Your task to perform on an android device: Search for seafood restaurants on Google Maps Image 0: 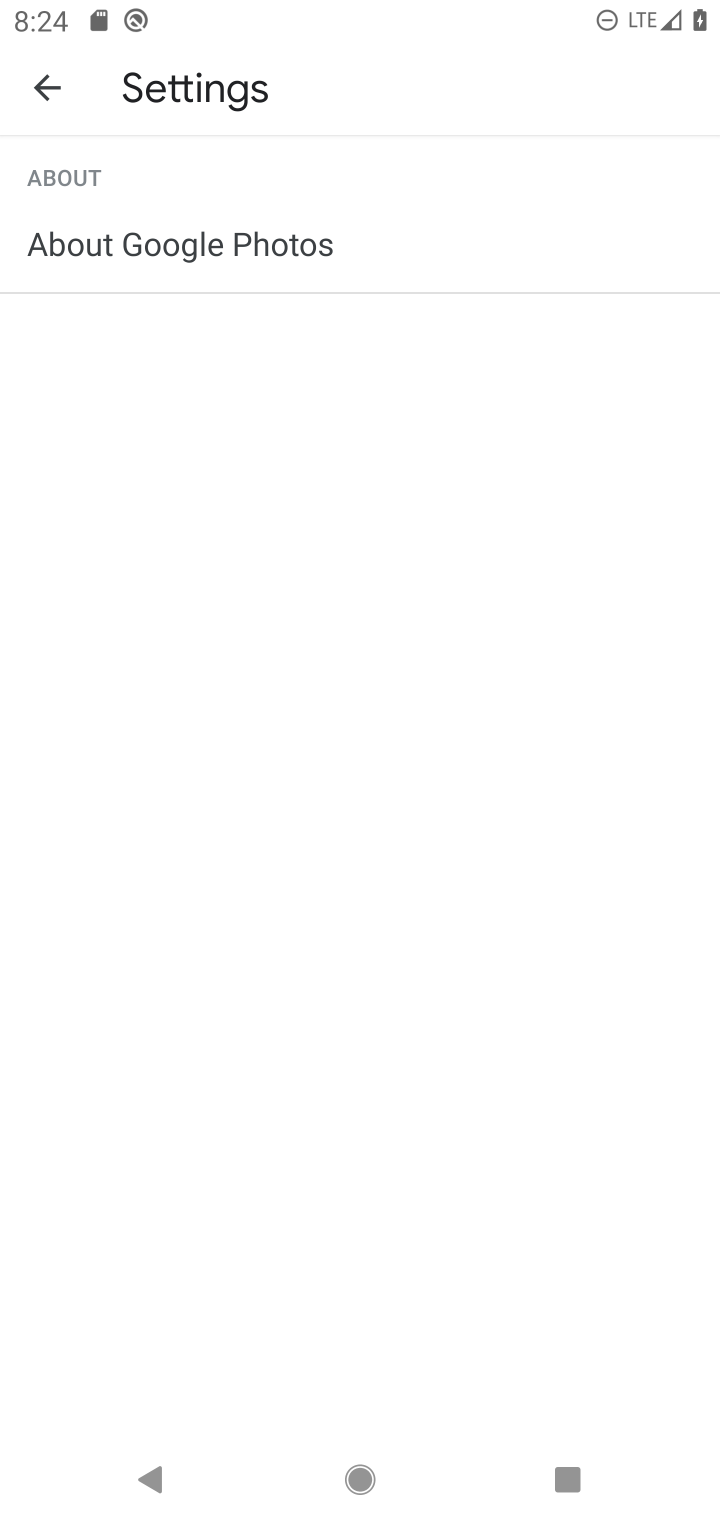
Step 0: press home button
Your task to perform on an android device: Search for seafood restaurants on Google Maps Image 1: 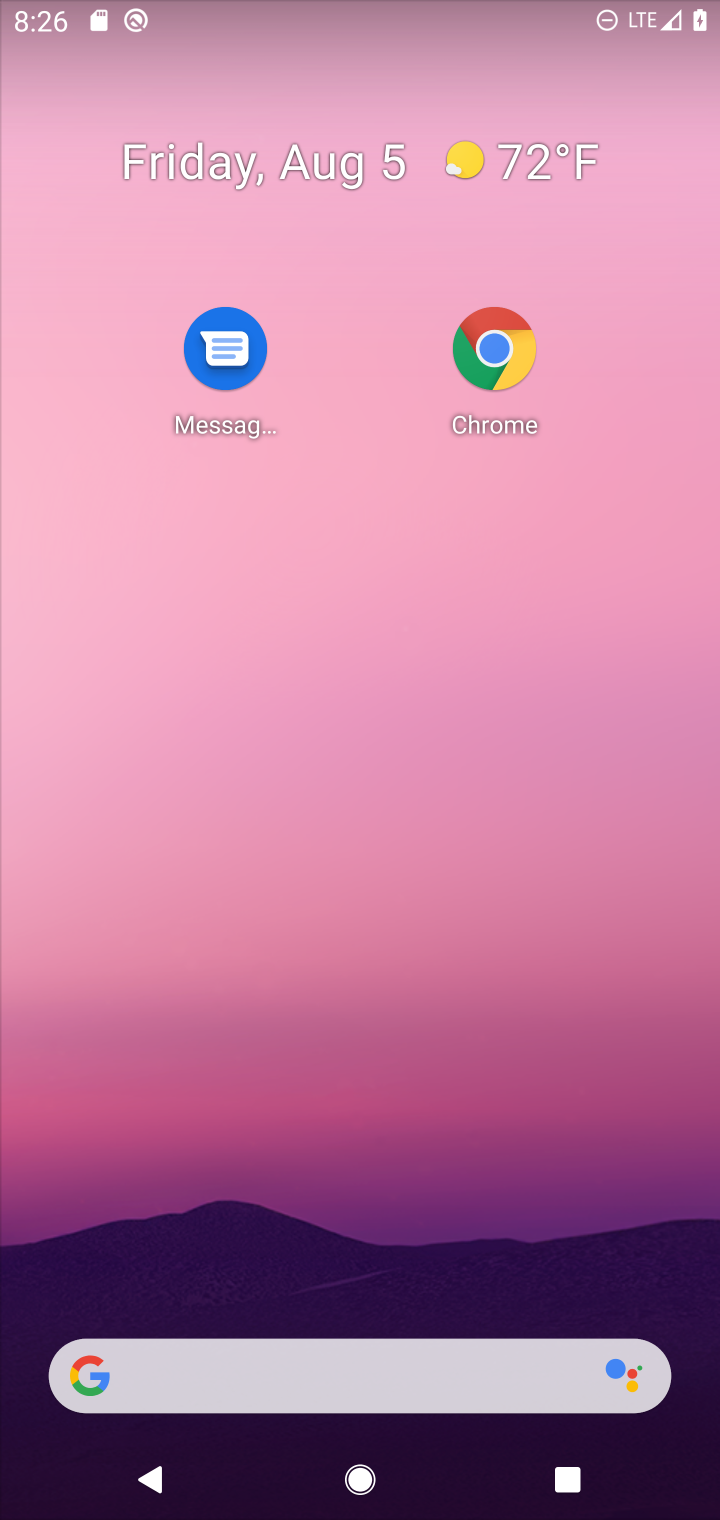
Step 1: drag from (474, 1305) to (338, 352)
Your task to perform on an android device: Search for seafood restaurants on Google Maps Image 2: 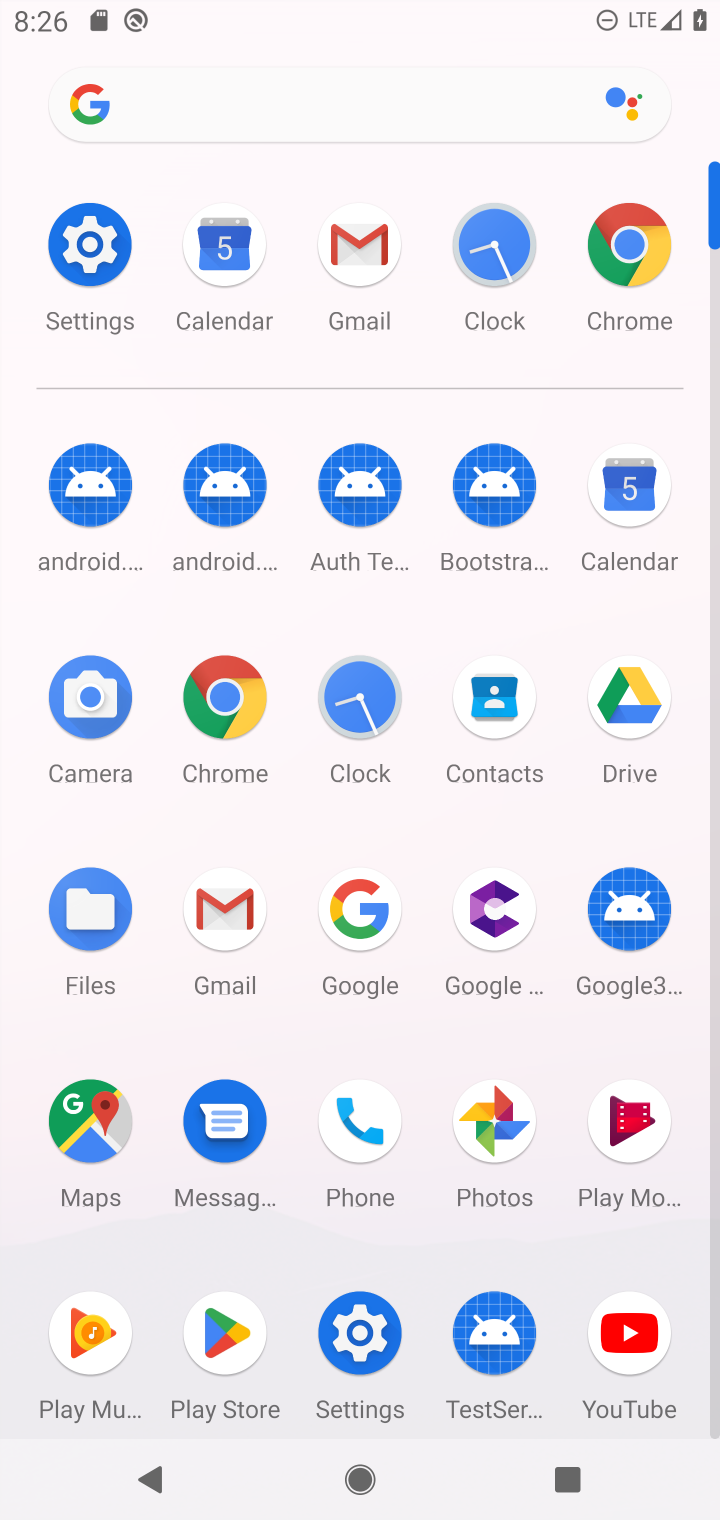
Step 2: click (88, 1125)
Your task to perform on an android device: Search for seafood restaurants on Google Maps Image 3: 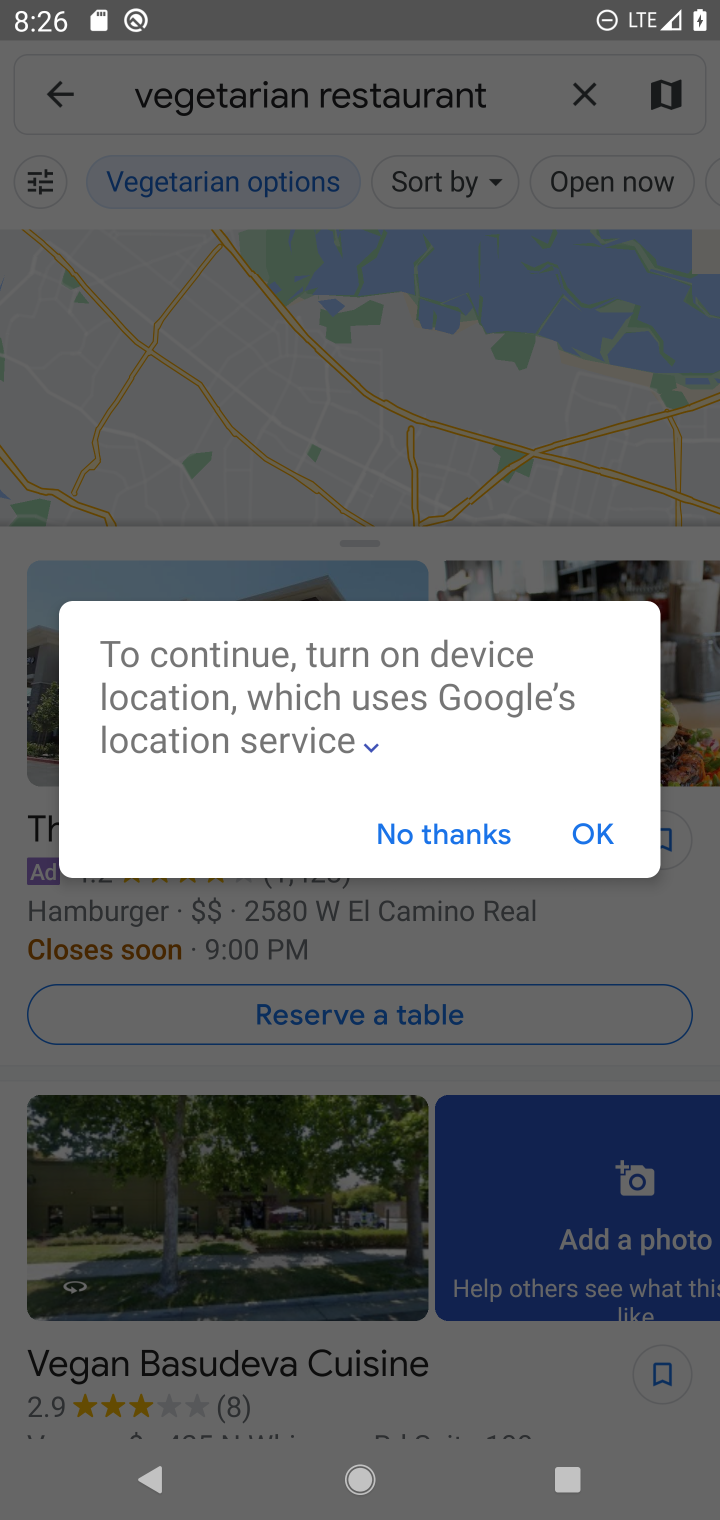
Step 3: click (469, 832)
Your task to perform on an android device: Search for seafood restaurants on Google Maps Image 4: 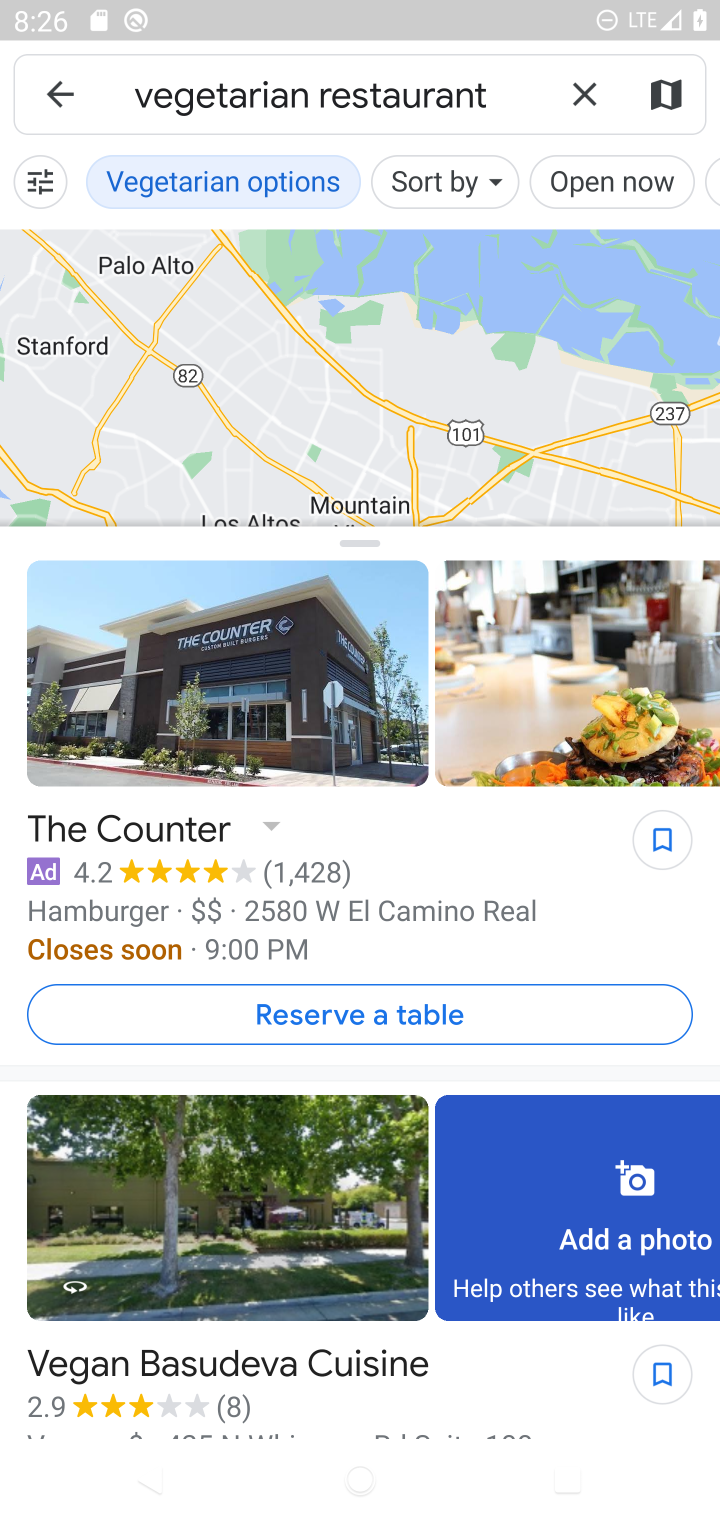
Step 4: click (580, 91)
Your task to perform on an android device: Search for seafood restaurants on Google Maps Image 5: 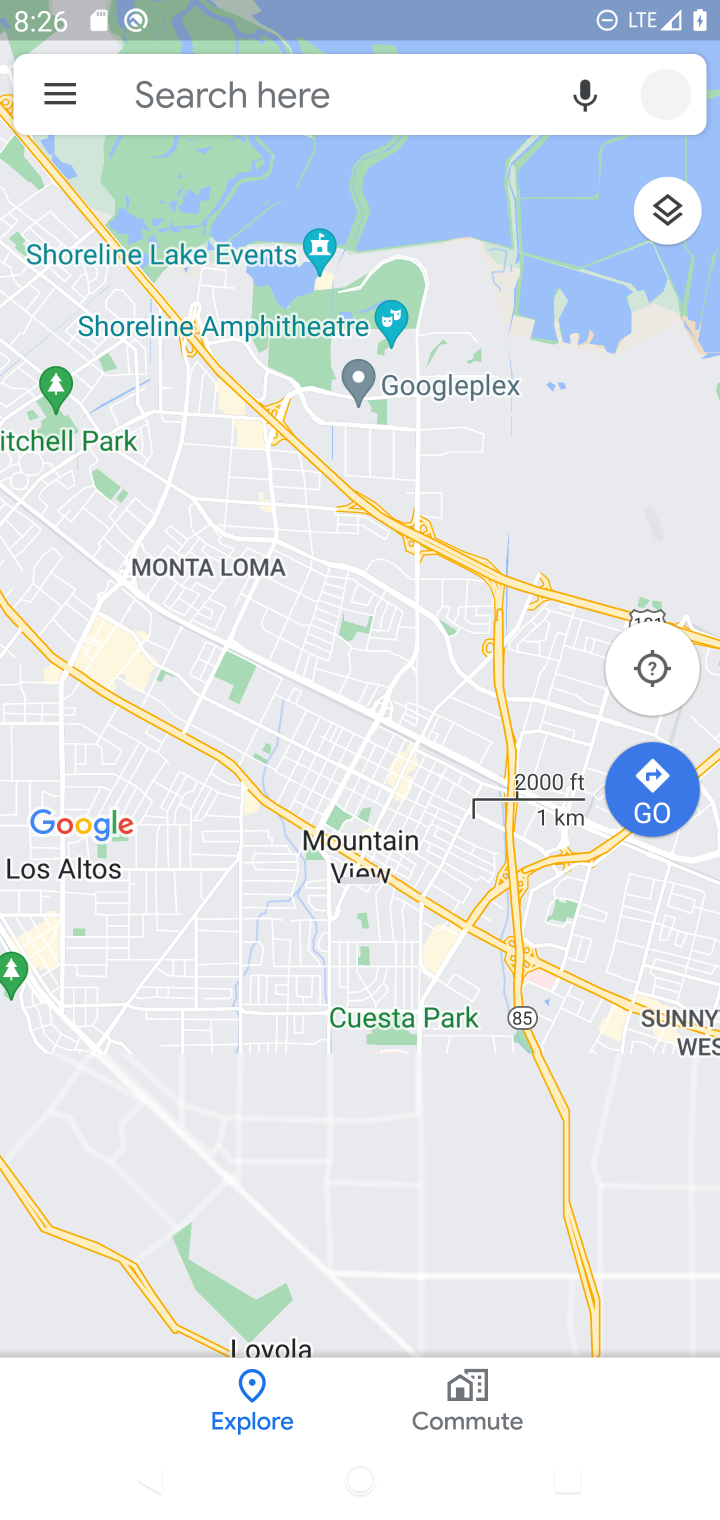
Step 5: click (271, 108)
Your task to perform on an android device: Search for seafood restaurants on Google Maps Image 6: 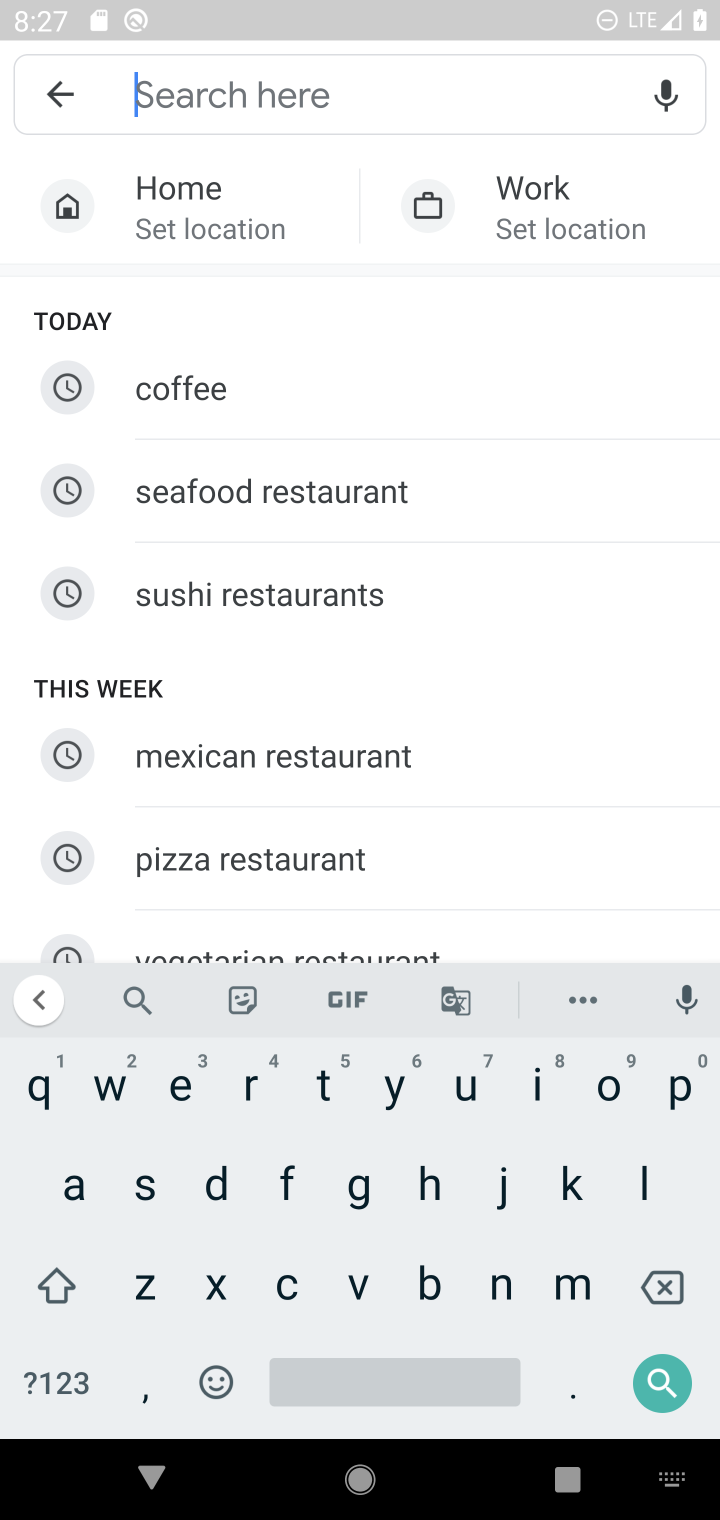
Step 6: click (278, 503)
Your task to perform on an android device: Search for seafood restaurants on Google Maps Image 7: 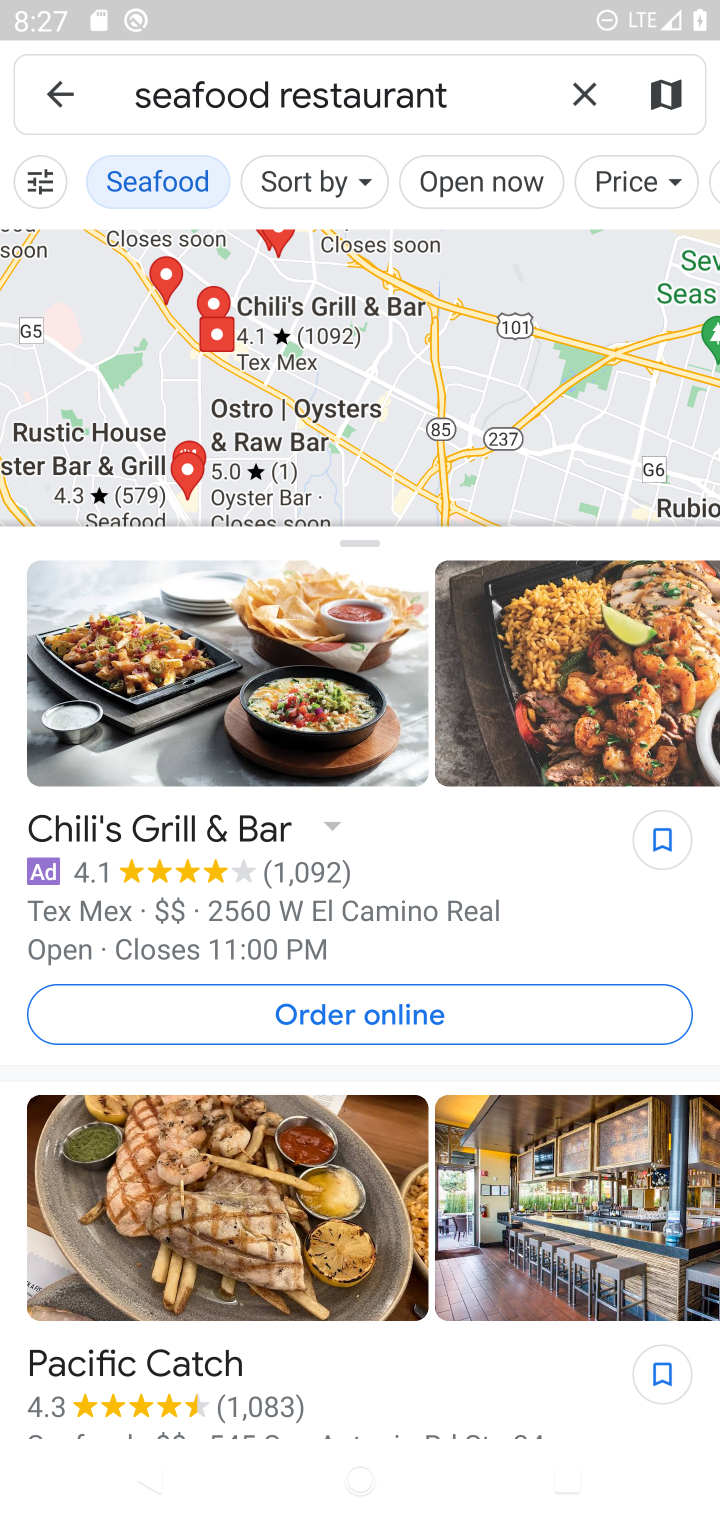
Step 7: task complete